Your task to perform on an android device: star an email in the gmail app Image 0: 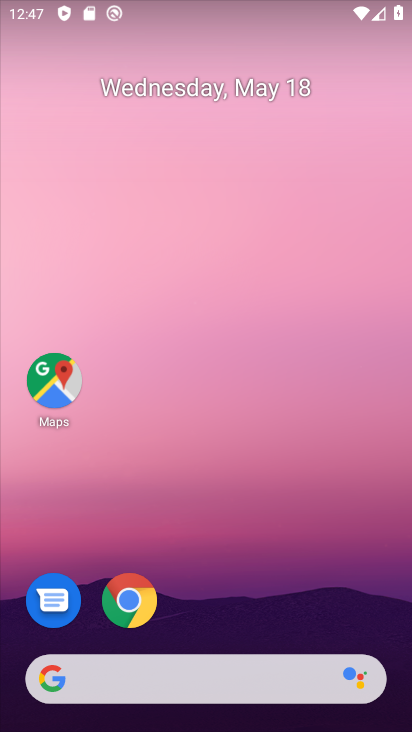
Step 0: drag from (265, 583) to (232, 1)
Your task to perform on an android device: star an email in the gmail app Image 1: 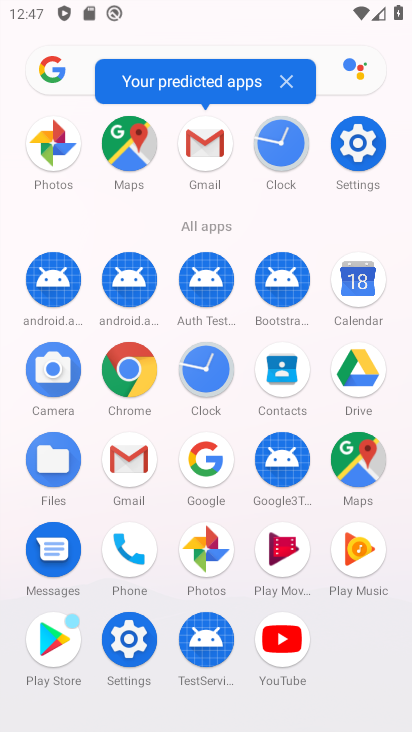
Step 1: click (129, 458)
Your task to perform on an android device: star an email in the gmail app Image 2: 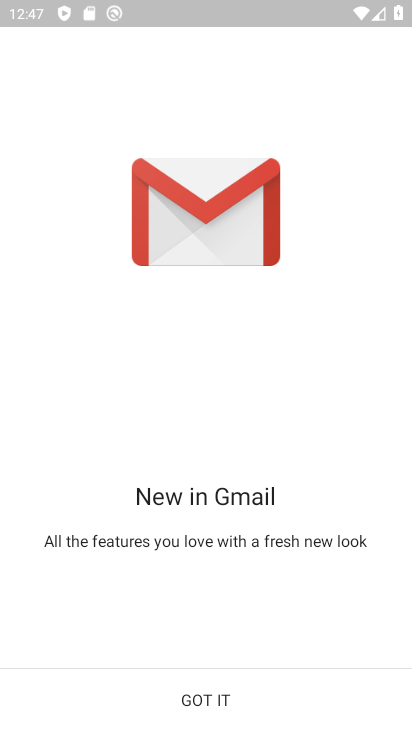
Step 2: click (194, 699)
Your task to perform on an android device: star an email in the gmail app Image 3: 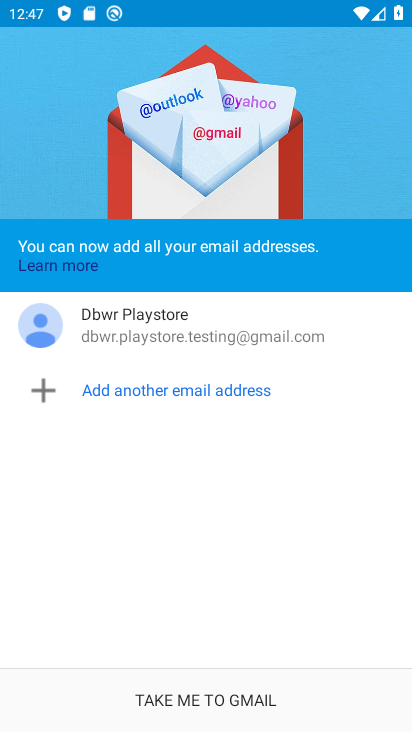
Step 3: click (197, 698)
Your task to perform on an android device: star an email in the gmail app Image 4: 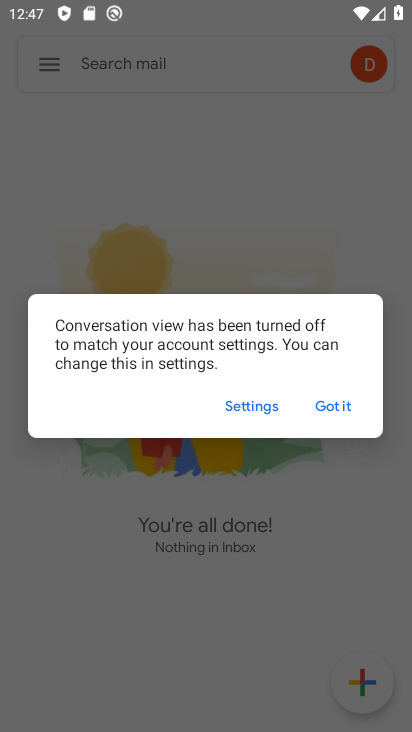
Step 4: click (338, 406)
Your task to perform on an android device: star an email in the gmail app Image 5: 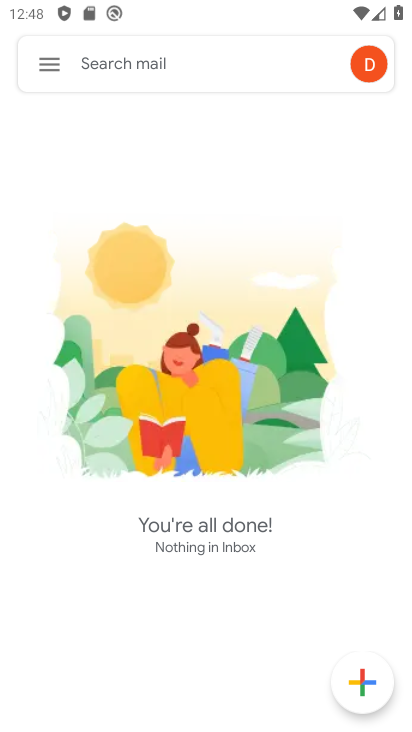
Step 5: click (50, 67)
Your task to perform on an android device: star an email in the gmail app Image 6: 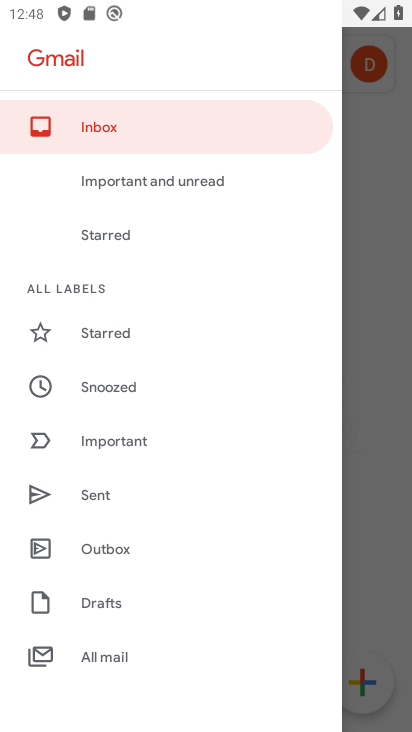
Step 6: click (130, 366)
Your task to perform on an android device: star an email in the gmail app Image 7: 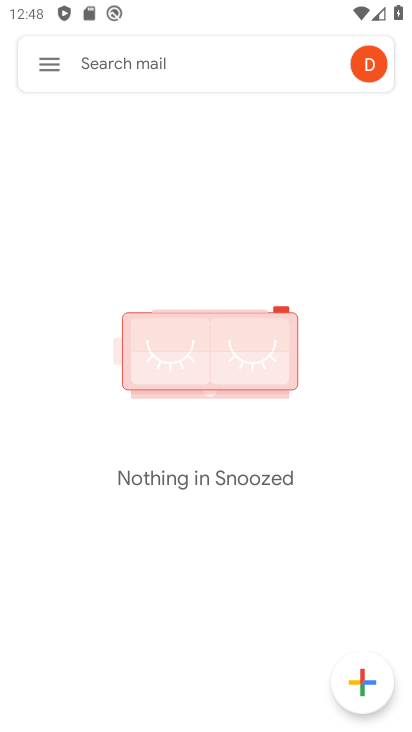
Step 7: task complete